Your task to perform on an android device: Search for pizza restaurants on Maps Image 0: 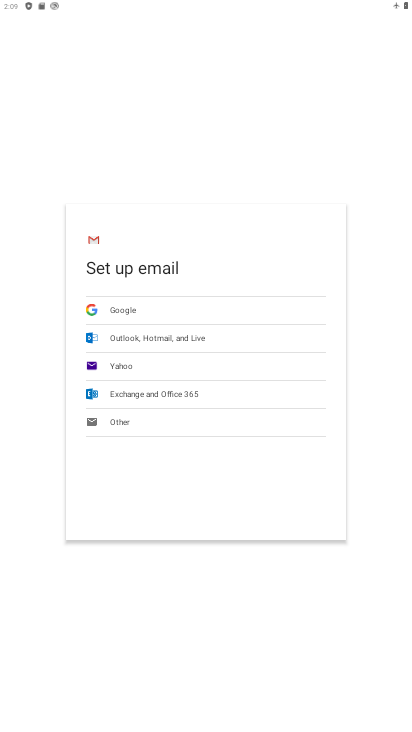
Step 0: press home button
Your task to perform on an android device: Search for pizza restaurants on Maps Image 1: 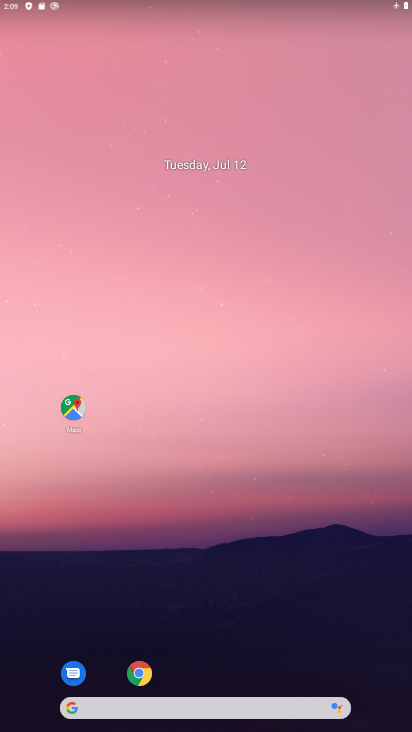
Step 1: drag from (235, 621) to (235, 236)
Your task to perform on an android device: Search for pizza restaurants on Maps Image 2: 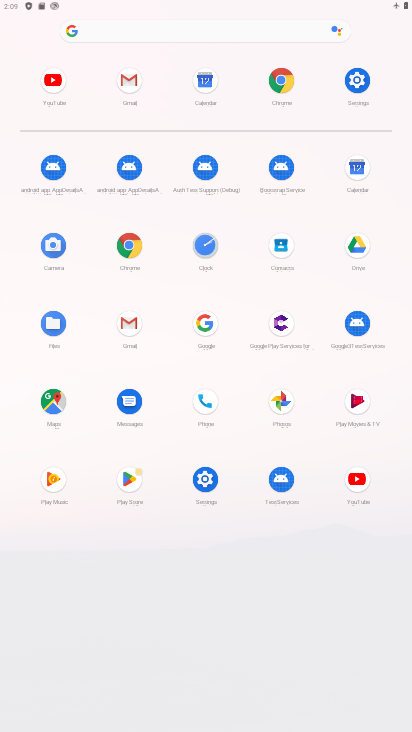
Step 2: click (53, 405)
Your task to perform on an android device: Search for pizza restaurants on Maps Image 3: 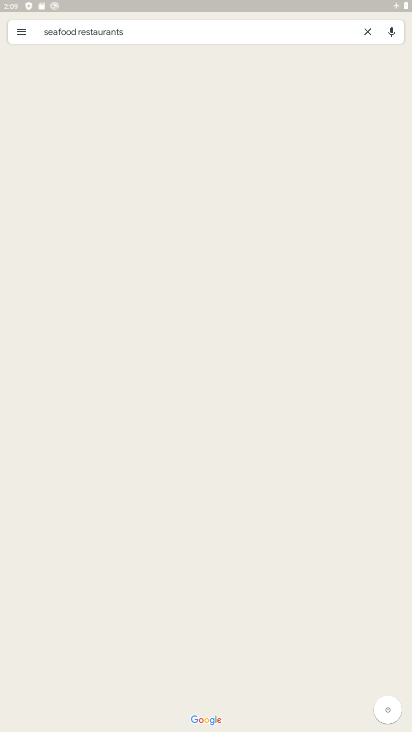
Step 3: click (199, 27)
Your task to perform on an android device: Search for pizza restaurants on Maps Image 4: 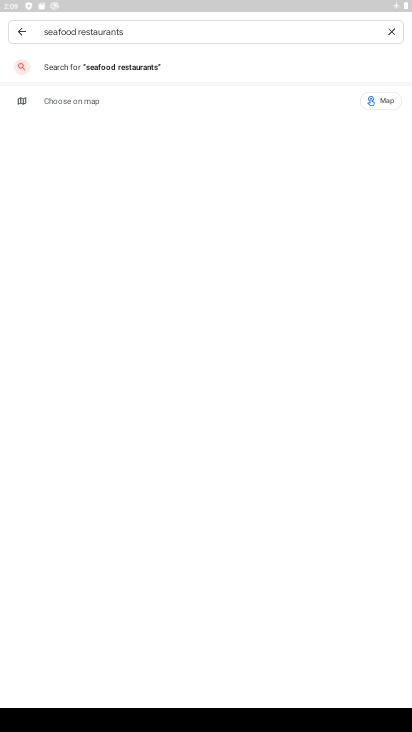
Step 4: click (390, 26)
Your task to perform on an android device: Search for pizza restaurants on Maps Image 5: 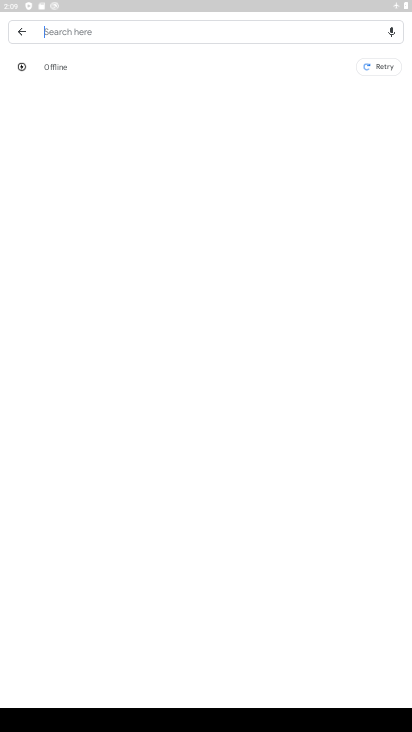
Step 5: click (155, 28)
Your task to perform on an android device: Search for pizza restaurants on Maps Image 6: 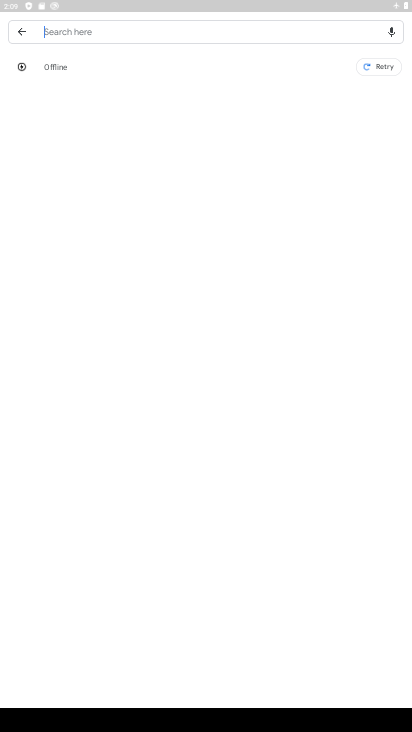
Step 6: type "pizza restaurants  "
Your task to perform on an android device: Search for pizza restaurants on Maps Image 7: 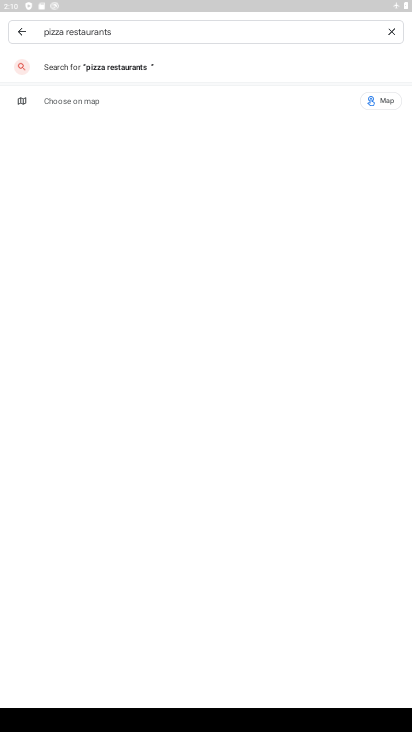
Step 7: task complete